Your task to perform on an android device: toggle javascript in the chrome app Image 0: 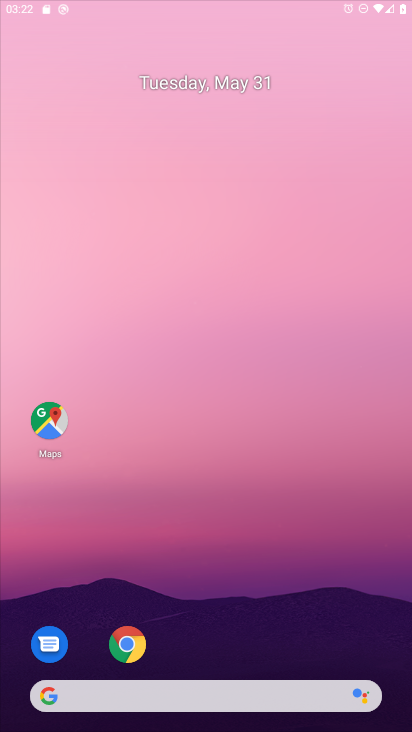
Step 0: click (123, 642)
Your task to perform on an android device: toggle javascript in the chrome app Image 1: 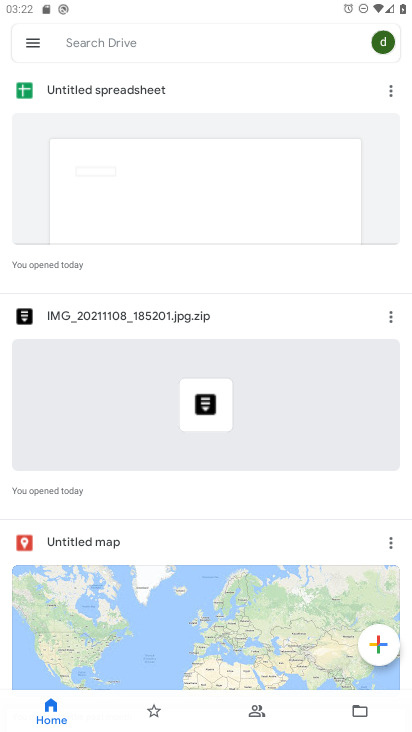
Step 1: press home button
Your task to perform on an android device: toggle javascript in the chrome app Image 2: 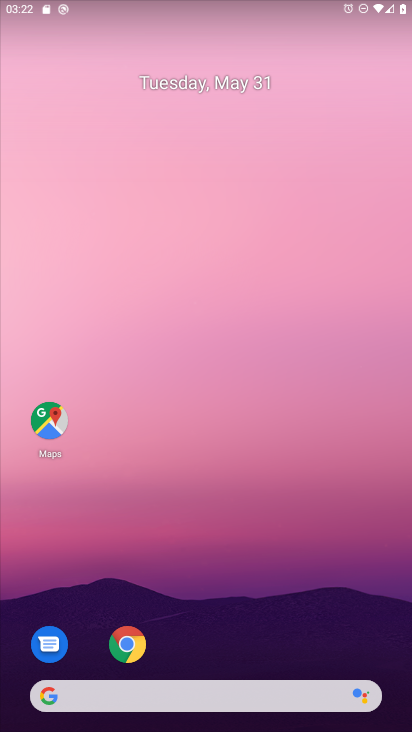
Step 2: click (127, 644)
Your task to perform on an android device: toggle javascript in the chrome app Image 3: 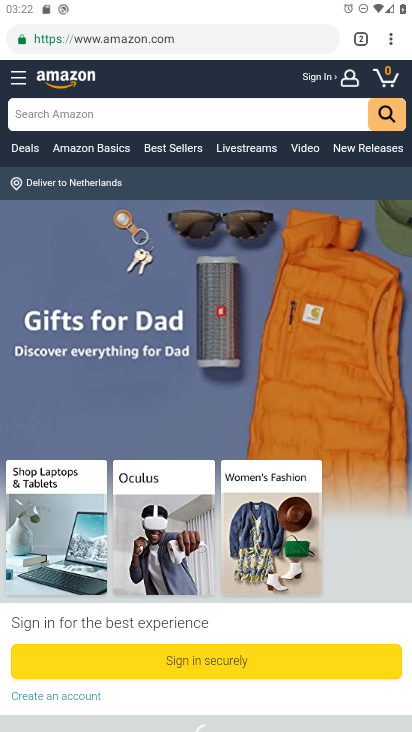
Step 3: drag from (387, 35) to (269, 460)
Your task to perform on an android device: toggle javascript in the chrome app Image 4: 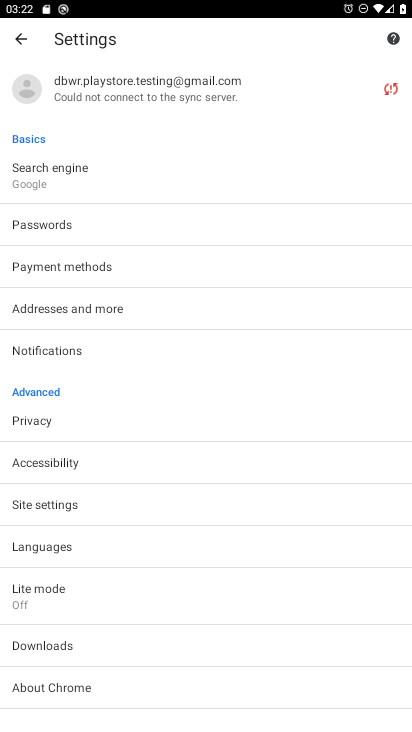
Step 4: click (73, 499)
Your task to perform on an android device: toggle javascript in the chrome app Image 5: 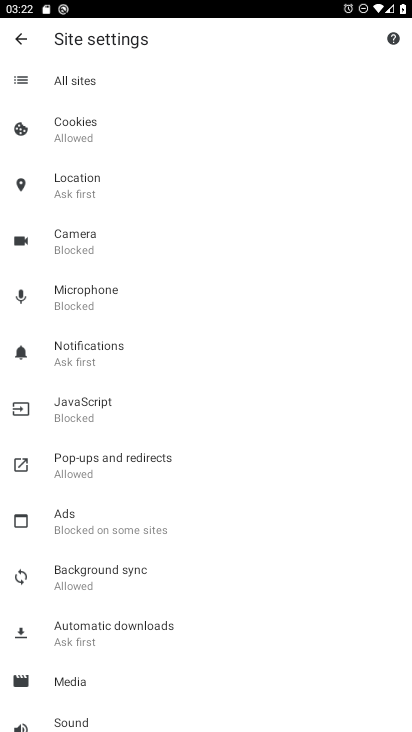
Step 5: click (71, 414)
Your task to perform on an android device: toggle javascript in the chrome app Image 6: 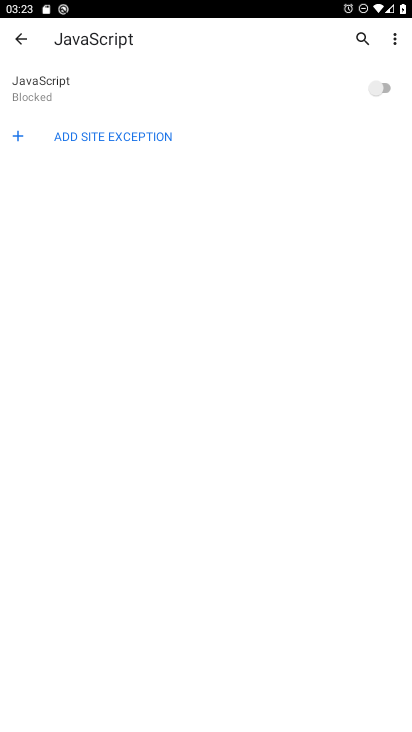
Step 6: click (355, 83)
Your task to perform on an android device: toggle javascript in the chrome app Image 7: 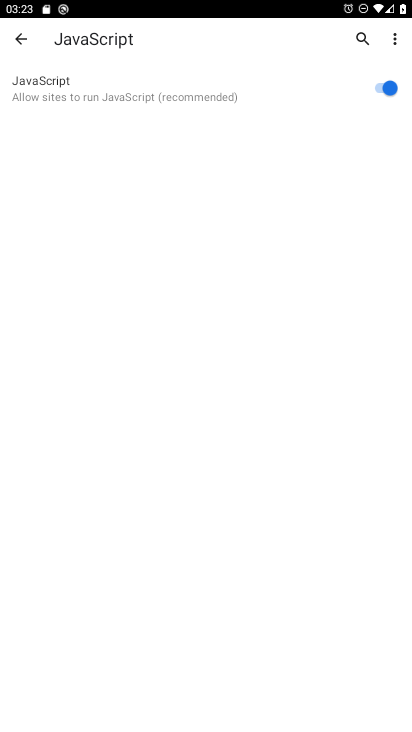
Step 7: task complete